Your task to perform on an android device: Go to sound settings Image 0: 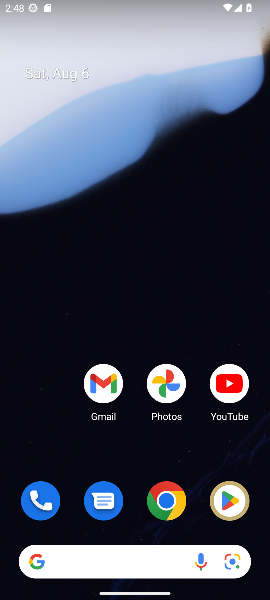
Step 0: drag from (137, 449) to (153, 17)
Your task to perform on an android device: Go to sound settings Image 1: 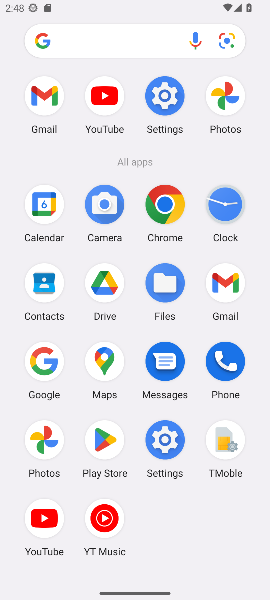
Step 1: click (177, 93)
Your task to perform on an android device: Go to sound settings Image 2: 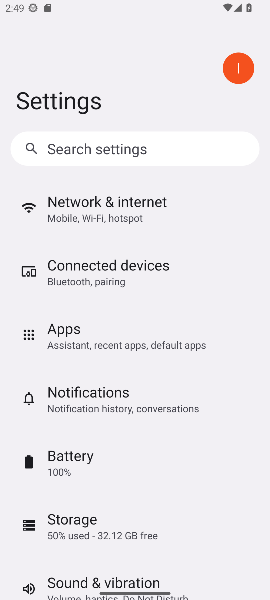
Step 2: drag from (132, 505) to (161, 178)
Your task to perform on an android device: Go to sound settings Image 3: 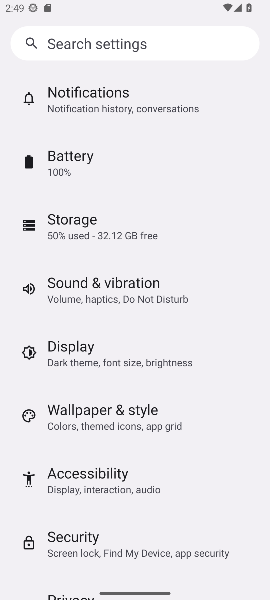
Step 3: drag from (190, 139) to (240, 198)
Your task to perform on an android device: Go to sound settings Image 4: 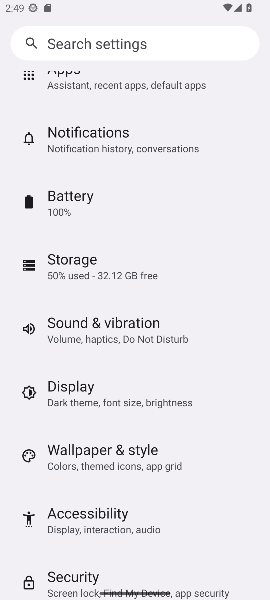
Step 4: click (101, 338)
Your task to perform on an android device: Go to sound settings Image 5: 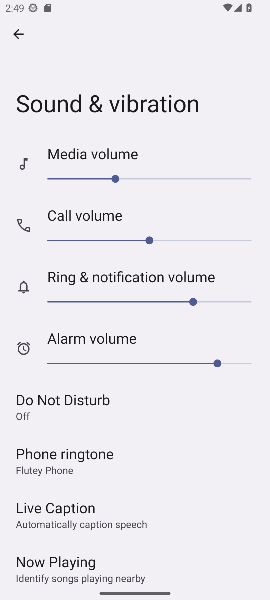
Step 5: task complete